Your task to perform on an android device: Open settings Image 0: 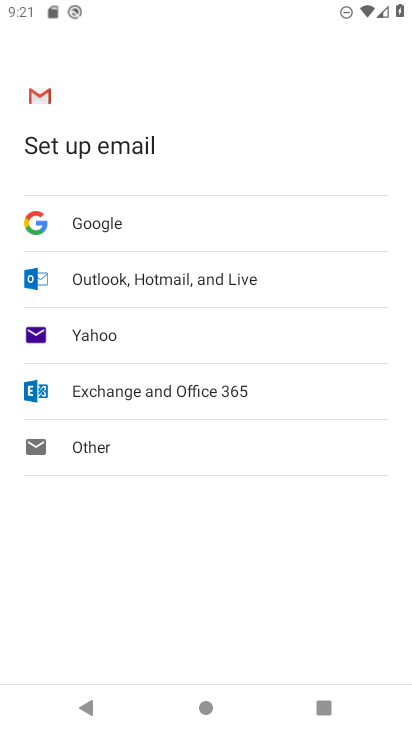
Step 0: drag from (222, 589) to (407, 9)
Your task to perform on an android device: Open settings Image 1: 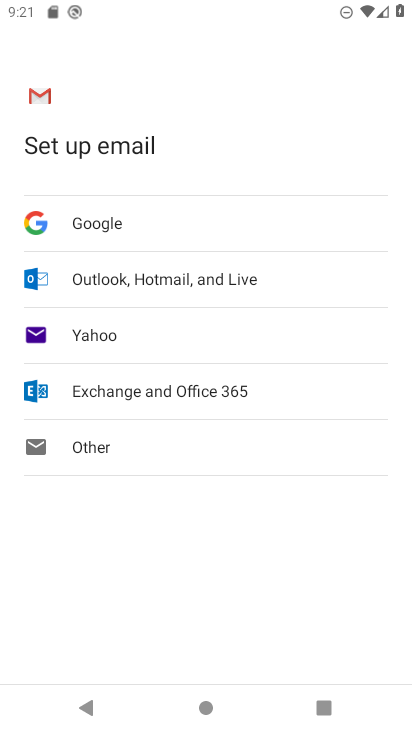
Step 1: drag from (180, 625) to (334, 82)
Your task to perform on an android device: Open settings Image 2: 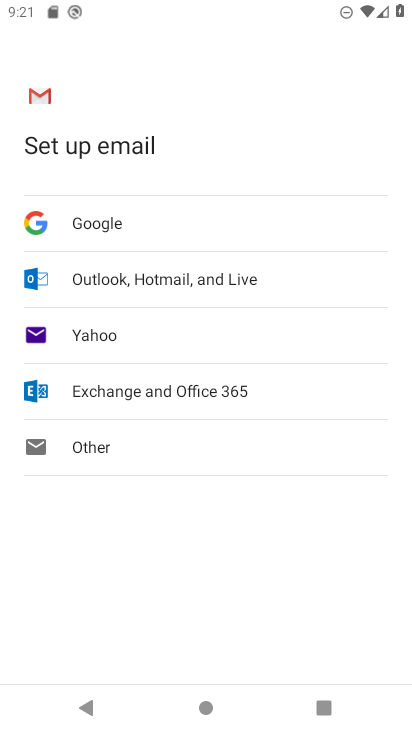
Step 2: drag from (180, 508) to (299, 104)
Your task to perform on an android device: Open settings Image 3: 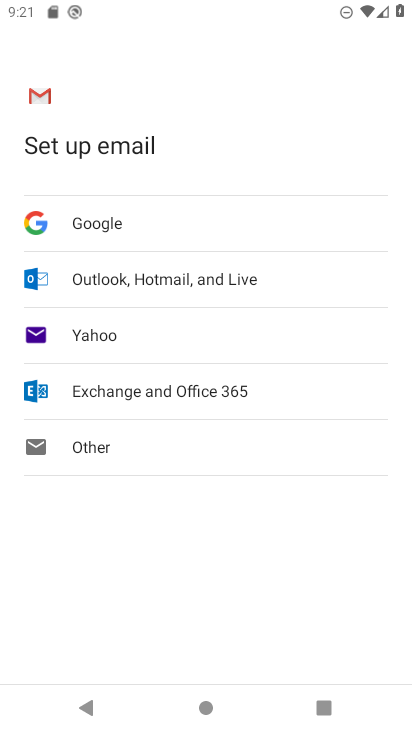
Step 3: drag from (166, 582) to (309, 25)
Your task to perform on an android device: Open settings Image 4: 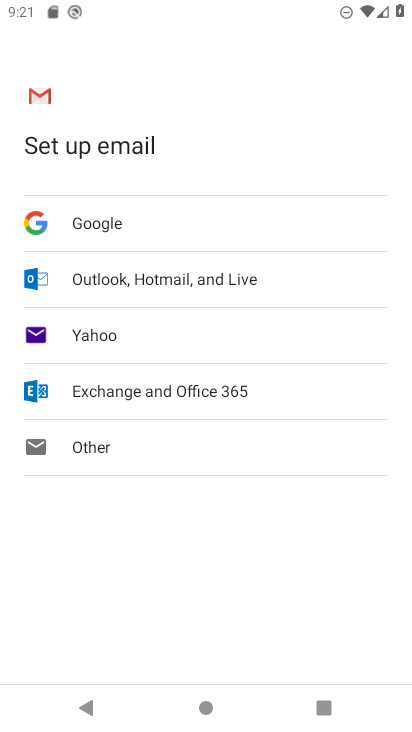
Step 4: press home button
Your task to perform on an android device: Open settings Image 5: 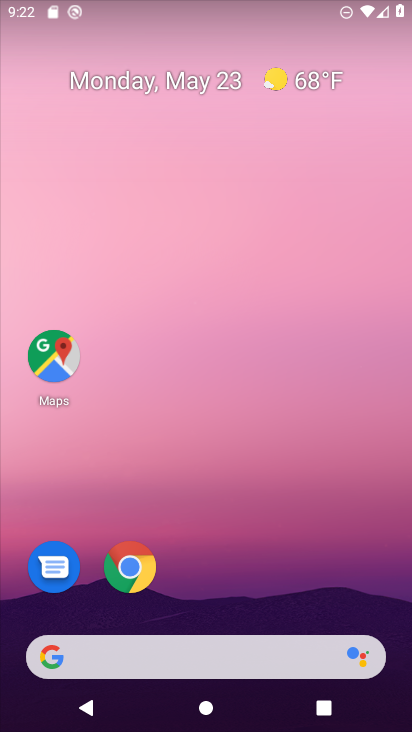
Step 5: drag from (220, 616) to (301, 6)
Your task to perform on an android device: Open settings Image 6: 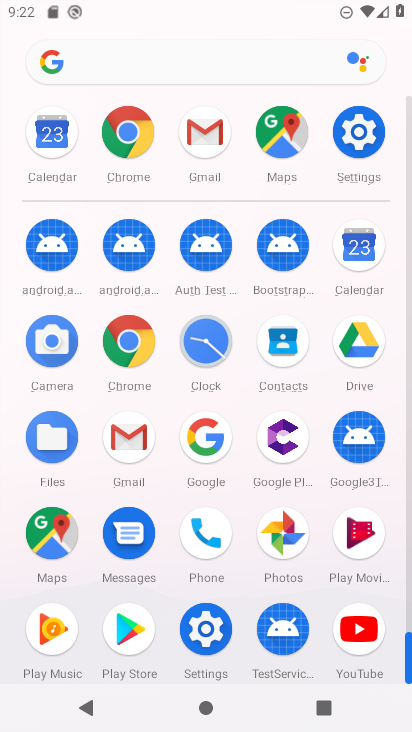
Step 6: click (367, 130)
Your task to perform on an android device: Open settings Image 7: 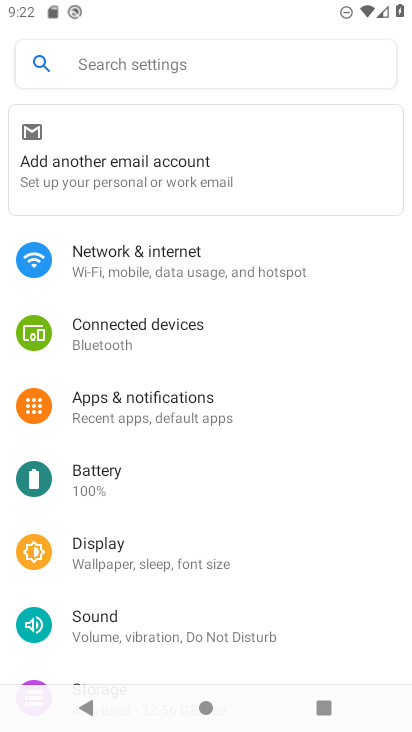
Step 7: task complete